Your task to perform on an android device: Open display settings Image 0: 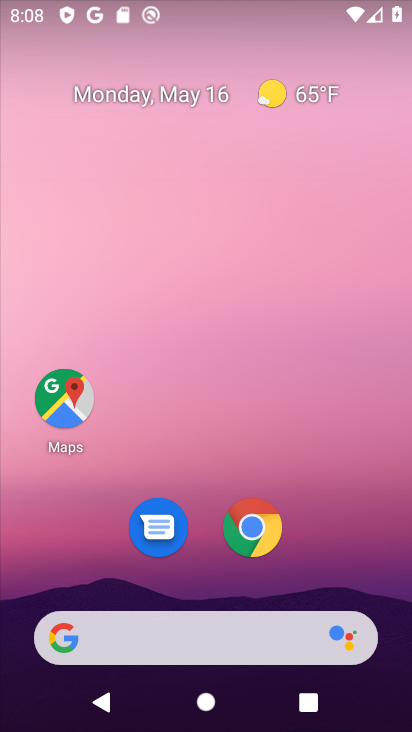
Step 0: drag from (316, 480) to (310, 233)
Your task to perform on an android device: Open display settings Image 1: 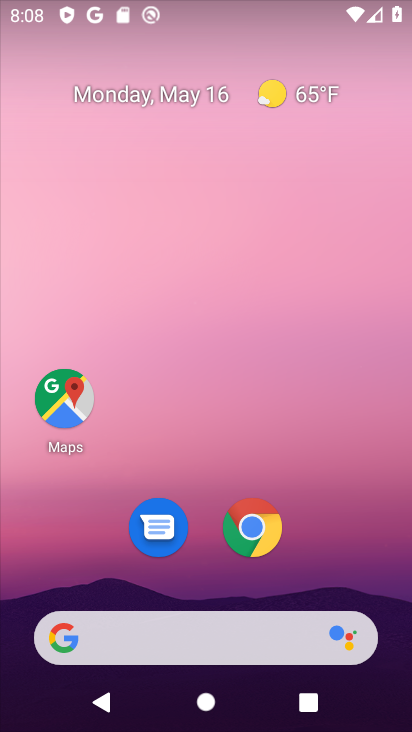
Step 1: drag from (306, 579) to (304, 171)
Your task to perform on an android device: Open display settings Image 2: 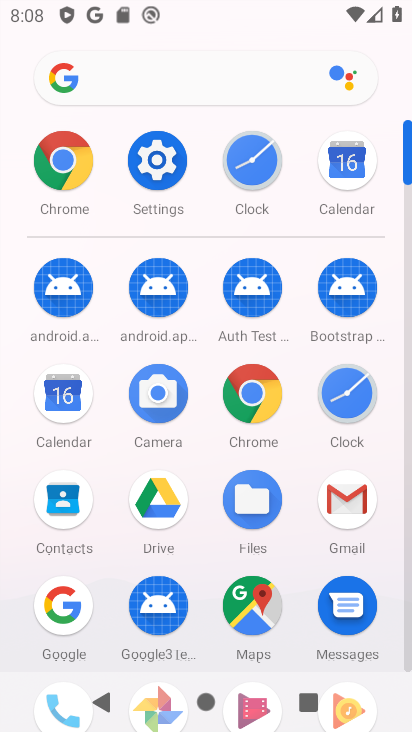
Step 2: click (147, 152)
Your task to perform on an android device: Open display settings Image 3: 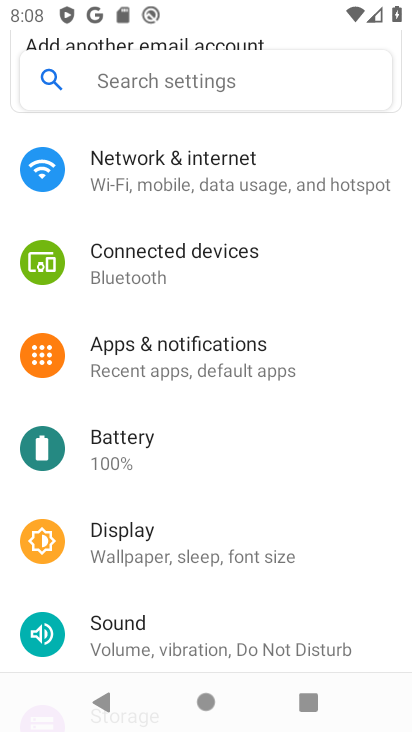
Step 3: click (134, 535)
Your task to perform on an android device: Open display settings Image 4: 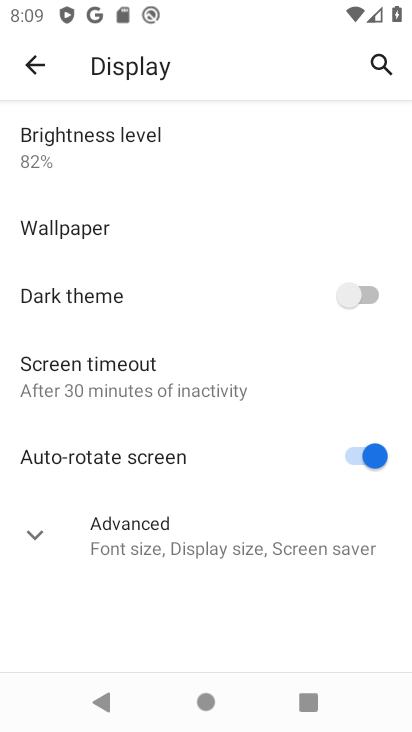
Step 4: task complete